Your task to perform on an android device: Open Chrome and go to settings Image 0: 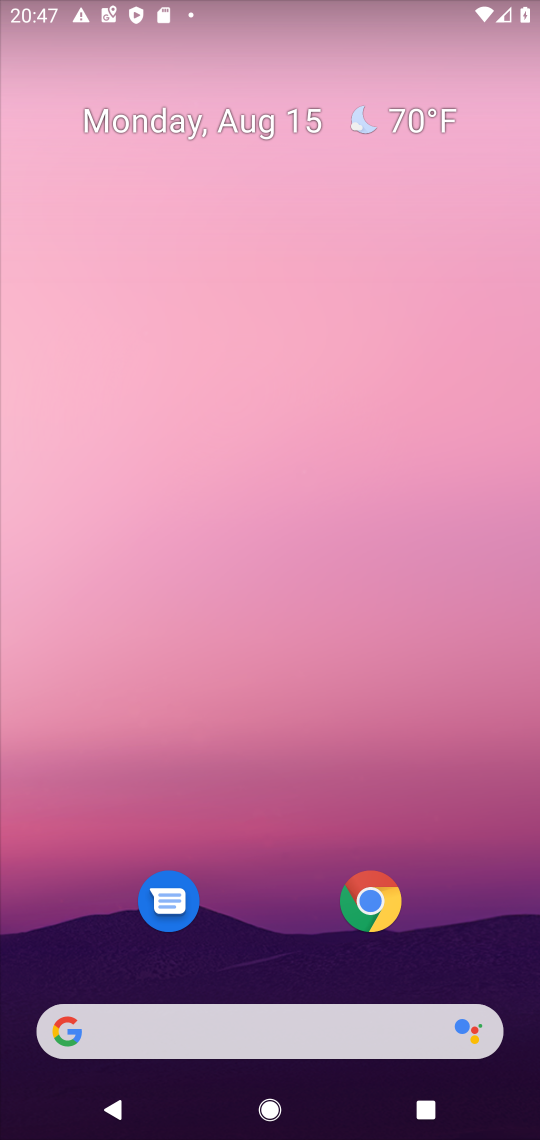
Step 0: click (372, 890)
Your task to perform on an android device: Open Chrome and go to settings Image 1: 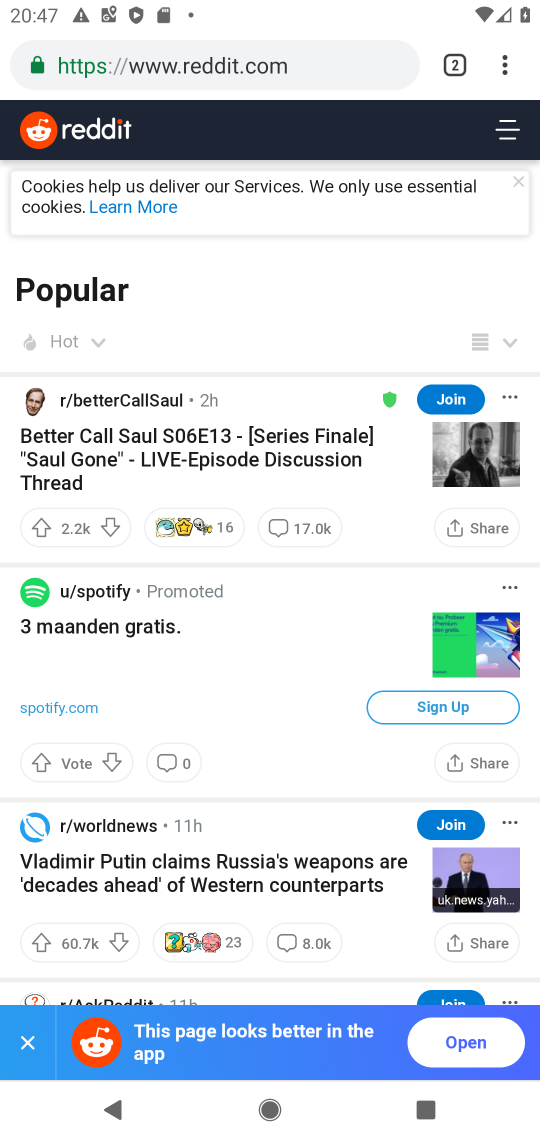
Step 1: click (507, 67)
Your task to perform on an android device: Open Chrome and go to settings Image 2: 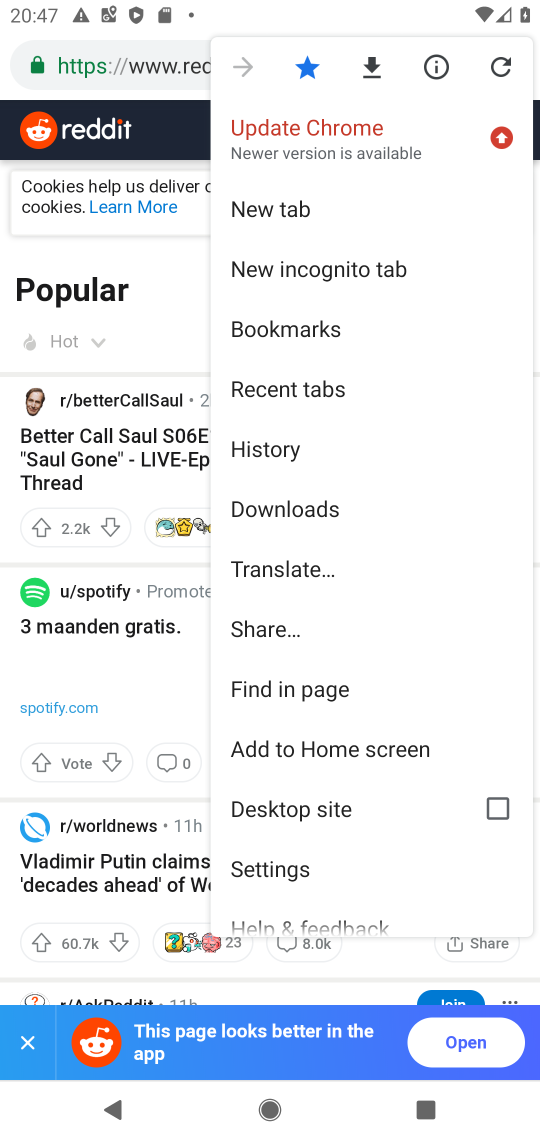
Step 2: click (292, 860)
Your task to perform on an android device: Open Chrome and go to settings Image 3: 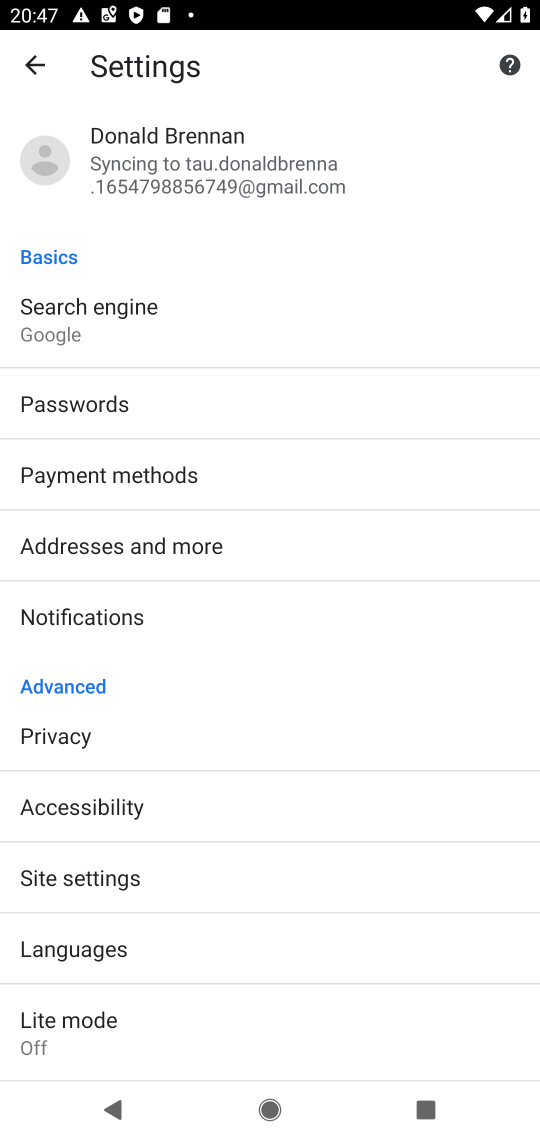
Step 3: task complete